Your task to perform on an android device: turn on priority inbox in the gmail app Image 0: 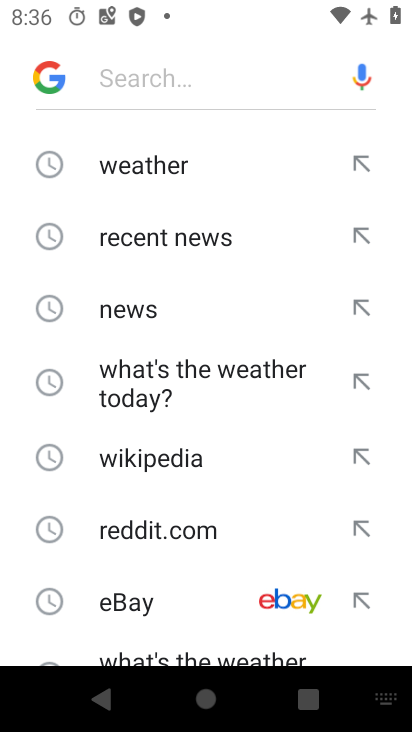
Step 0: press home button
Your task to perform on an android device: turn on priority inbox in the gmail app Image 1: 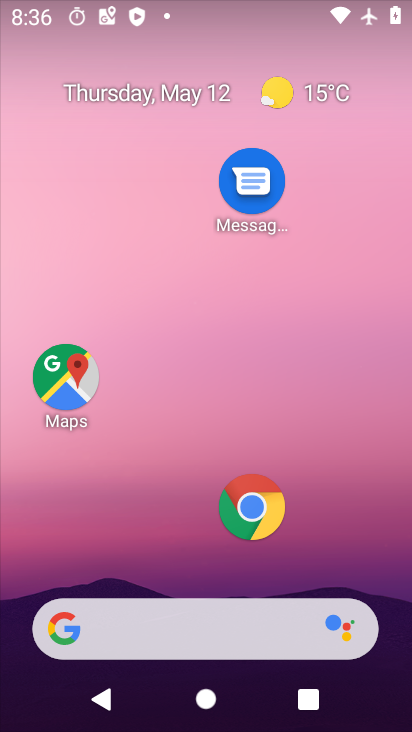
Step 1: drag from (171, 580) to (206, 53)
Your task to perform on an android device: turn on priority inbox in the gmail app Image 2: 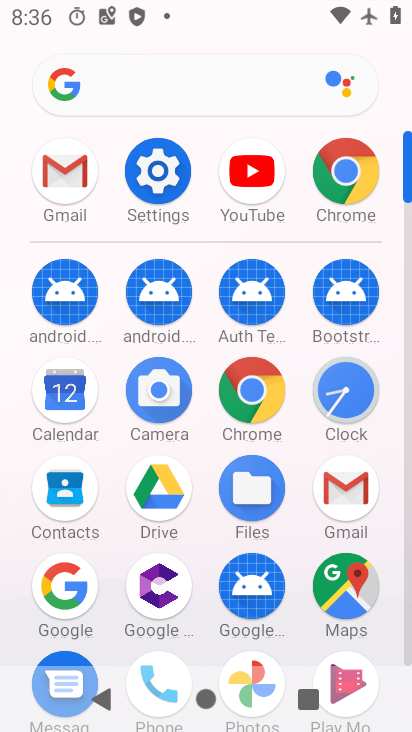
Step 2: click (352, 507)
Your task to perform on an android device: turn on priority inbox in the gmail app Image 3: 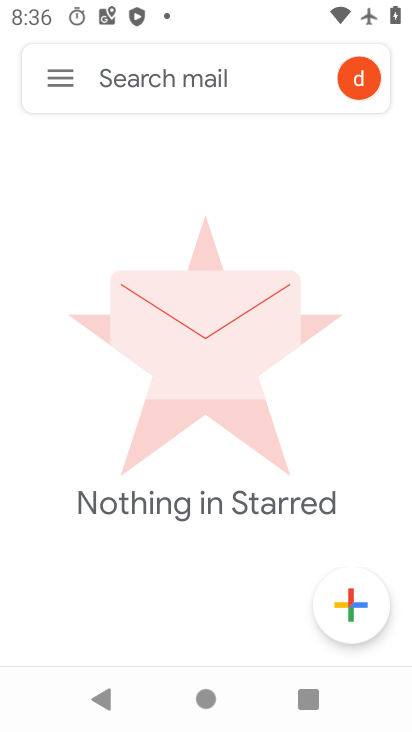
Step 3: click (58, 70)
Your task to perform on an android device: turn on priority inbox in the gmail app Image 4: 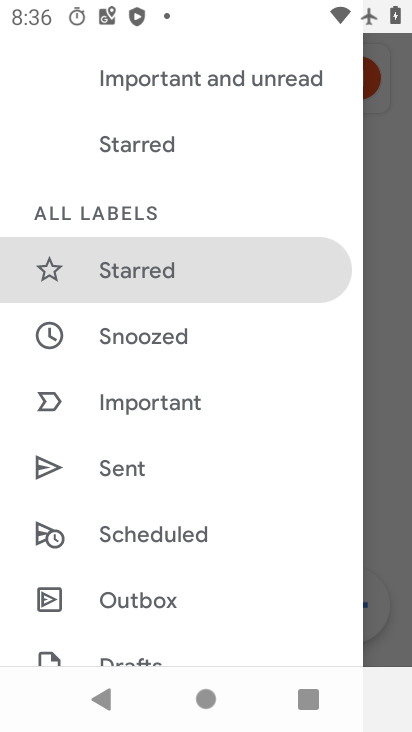
Step 4: drag from (192, 525) to (215, 151)
Your task to perform on an android device: turn on priority inbox in the gmail app Image 5: 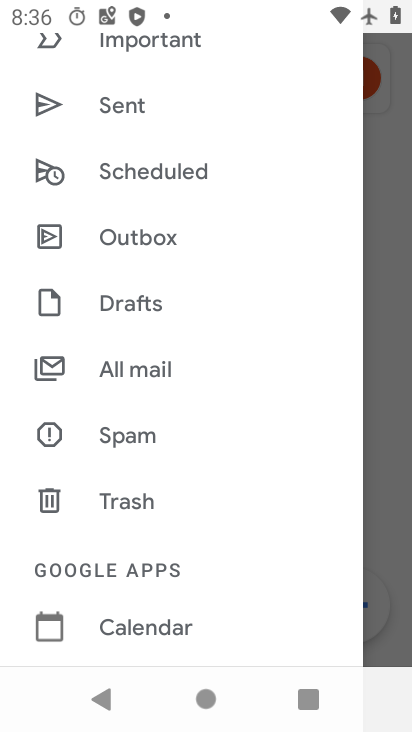
Step 5: drag from (254, 584) to (291, 223)
Your task to perform on an android device: turn on priority inbox in the gmail app Image 6: 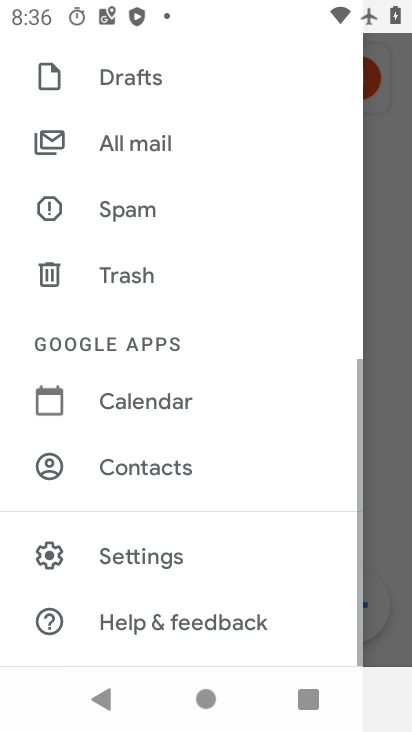
Step 6: click (161, 554)
Your task to perform on an android device: turn on priority inbox in the gmail app Image 7: 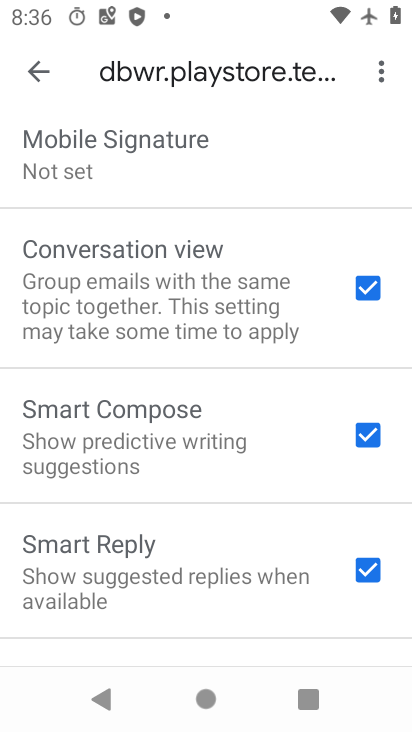
Step 7: drag from (207, 225) to (195, 437)
Your task to perform on an android device: turn on priority inbox in the gmail app Image 8: 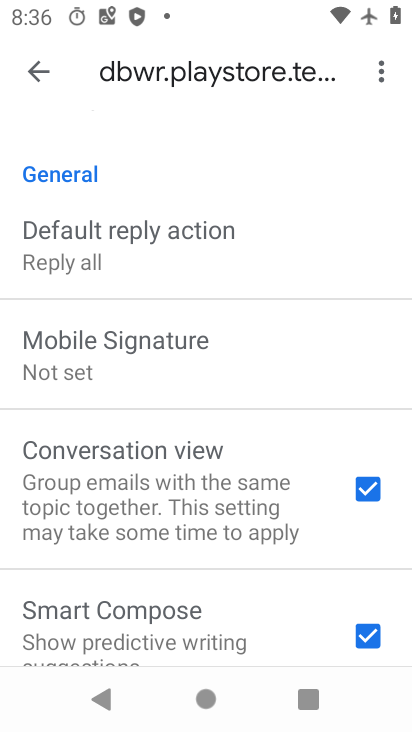
Step 8: drag from (193, 212) to (161, 425)
Your task to perform on an android device: turn on priority inbox in the gmail app Image 9: 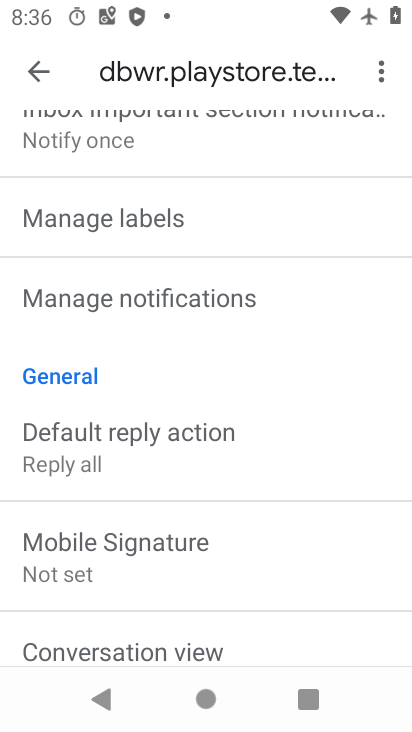
Step 9: drag from (140, 194) to (135, 422)
Your task to perform on an android device: turn on priority inbox in the gmail app Image 10: 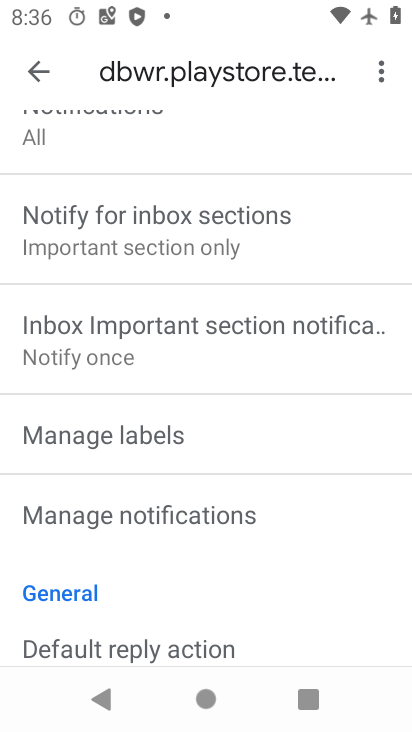
Step 10: drag from (129, 160) to (116, 411)
Your task to perform on an android device: turn on priority inbox in the gmail app Image 11: 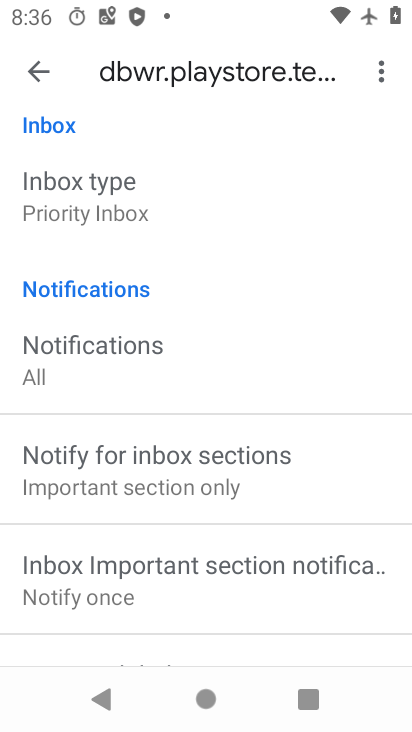
Step 11: click (138, 205)
Your task to perform on an android device: turn on priority inbox in the gmail app Image 12: 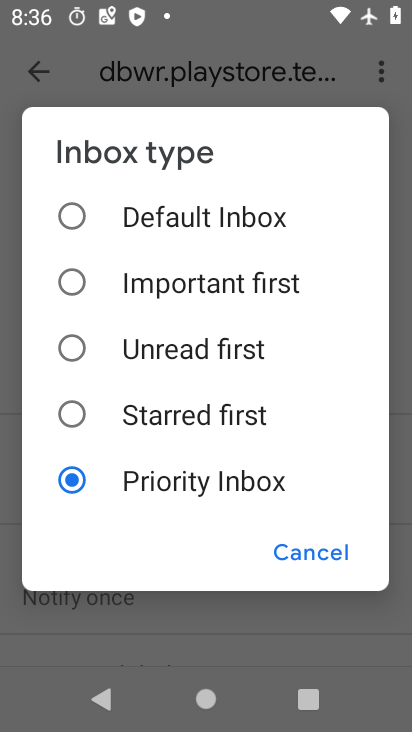
Step 12: click (194, 489)
Your task to perform on an android device: turn on priority inbox in the gmail app Image 13: 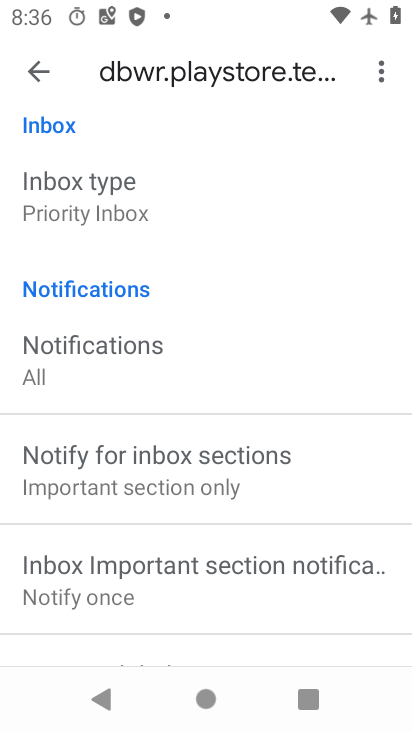
Step 13: task complete